Your task to perform on an android device: Search for Mexican restaurants on Maps Image 0: 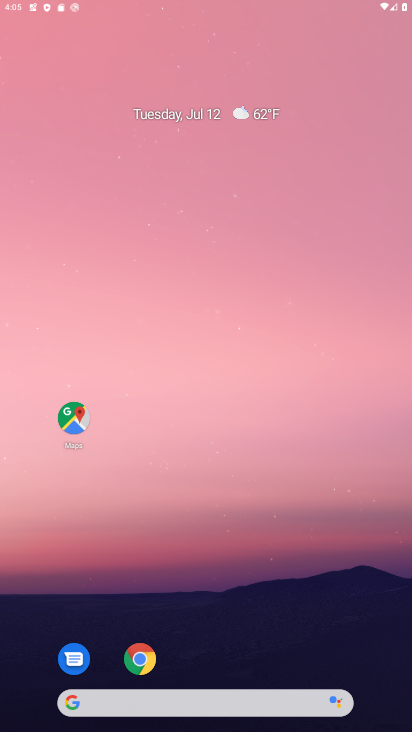
Step 0: press home button
Your task to perform on an android device: Search for Mexican restaurants on Maps Image 1: 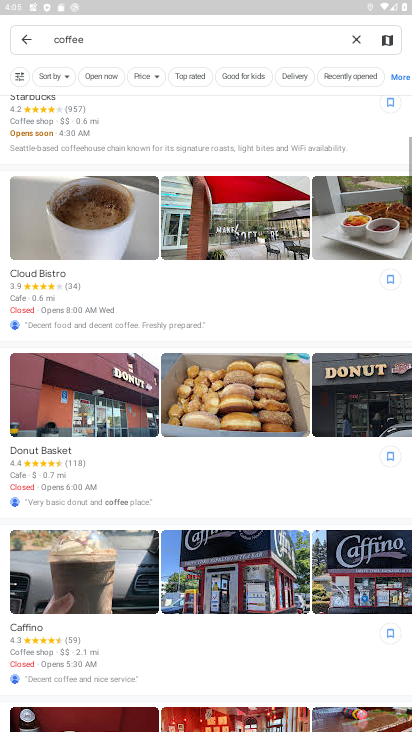
Step 1: click (136, 653)
Your task to perform on an android device: Search for Mexican restaurants on Maps Image 2: 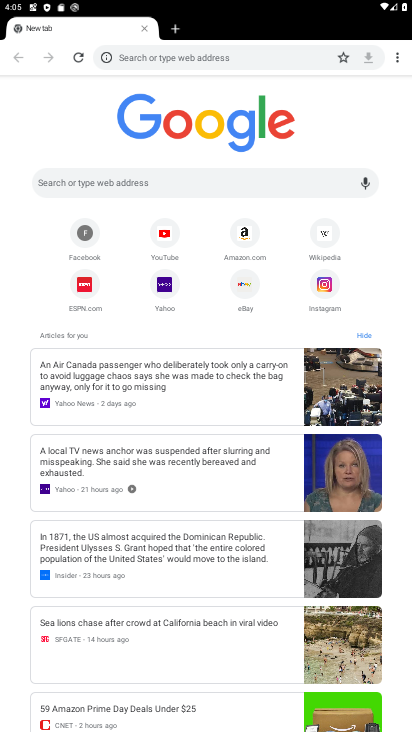
Step 2: press home button
Your task to perform on an android device: Search for Mexican restaurants on Maps Image 3: 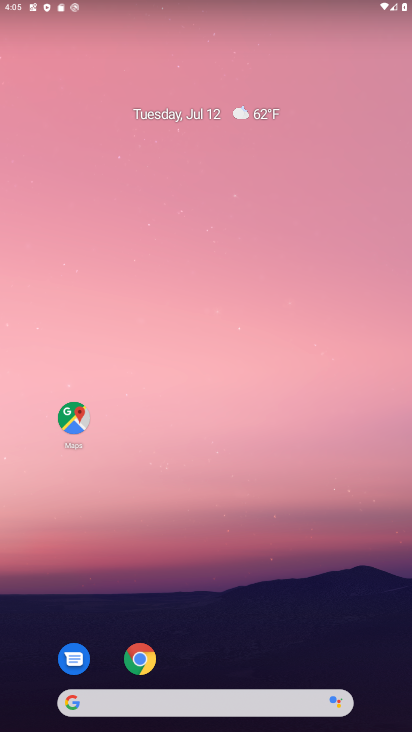
Step 3: click (79, 414)
Your task to perform on an android device: Search for Mexican restaurants on Maps Image 4: 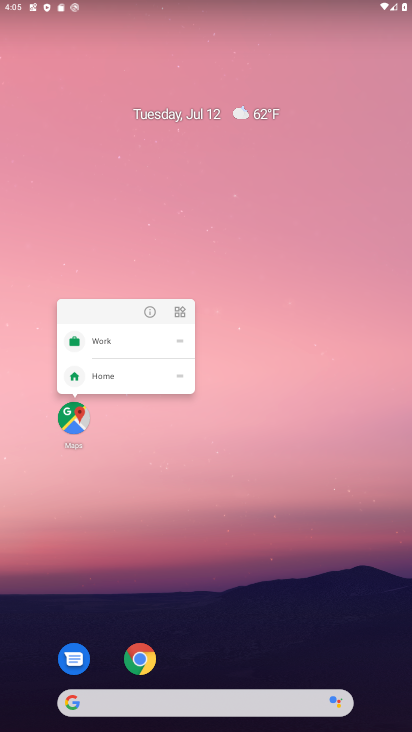
Step 4: click (79, 414)
Your task to perform on an android device: Search for Mexican restaurants on Maps Image 5: 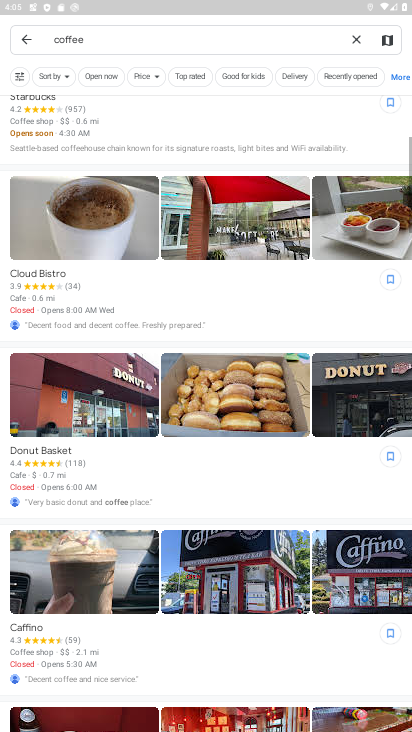
Step 5: click (356, 44)
Your task to perform on an android device: Search for Mexican restaurants on Maps Image 6: 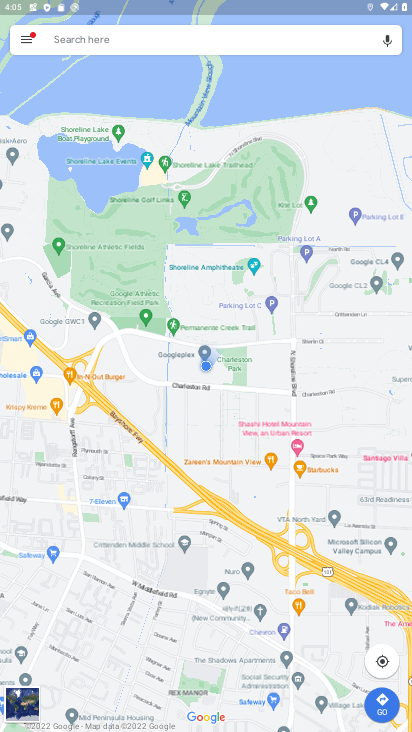
Step 6: click (106, 39)
Your task to perform on an android device: Search for Mexican restaurants on Maps Image 7: 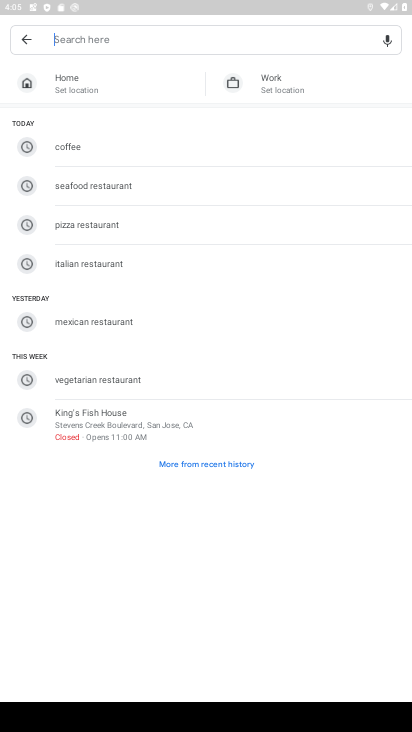
Step 7: click (106, 318)
Your task to perform on an android device: Search for Mexican restaurants on Maps Image 8: 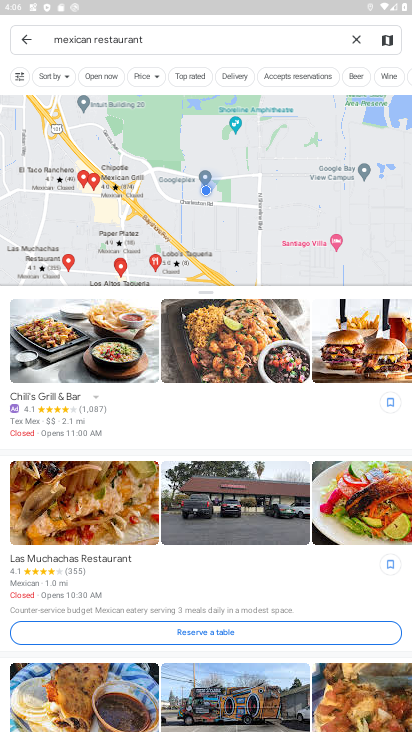
Step 8: task complete